Your task to perform on an android device: find snoozed emails in the gmail app Image 0: 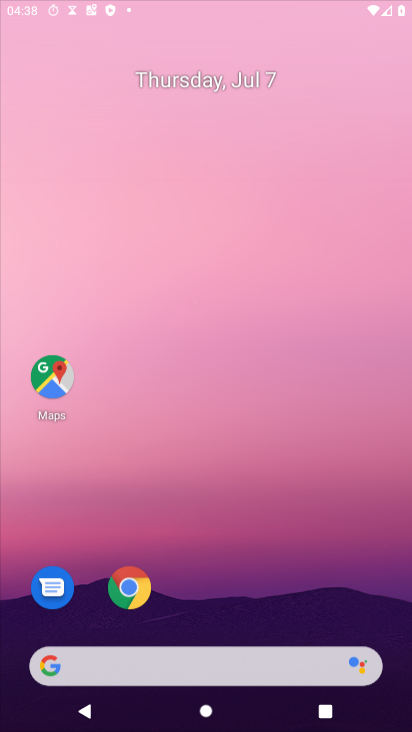
Step 0: press home button
Your task to perform on an android device: find snoozed emails in the gmail app Image 1: 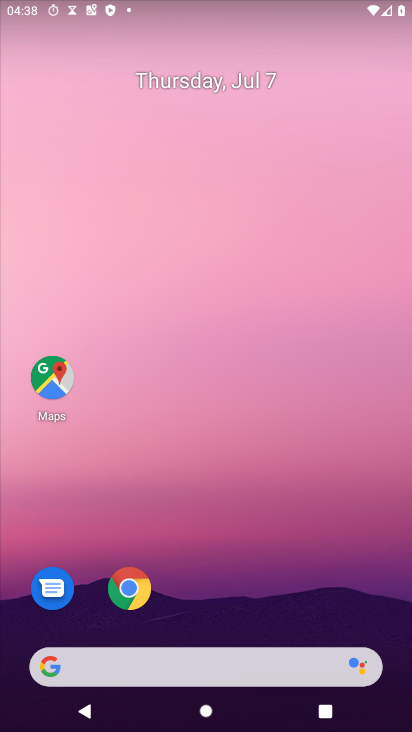
Step 1: drag from (224, 620) to (243, 200)
Your task to perform on an android device: find snoozed emails in the gmail app Image 2: 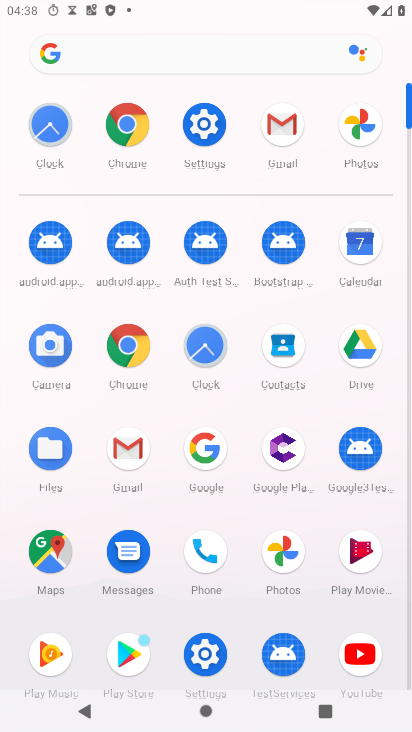
Step 2: click (283, 135)
Your task to perform on an android device: find snoozed emails in the gmail app Image 3: 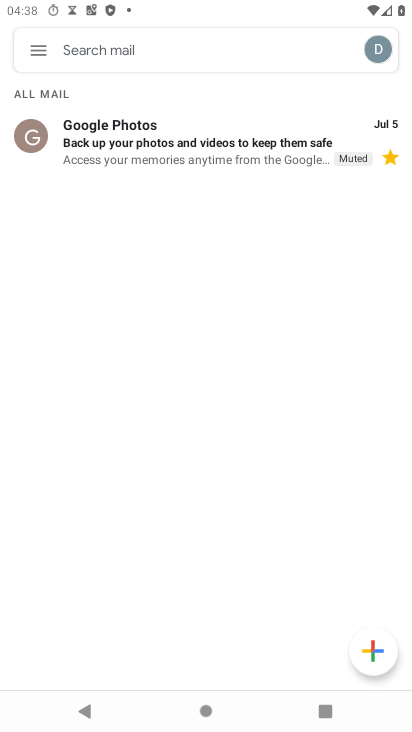
Step 3: click (39, 45)
Your task to perform on an android device: find snoozed emails in the gmail app Image 4: 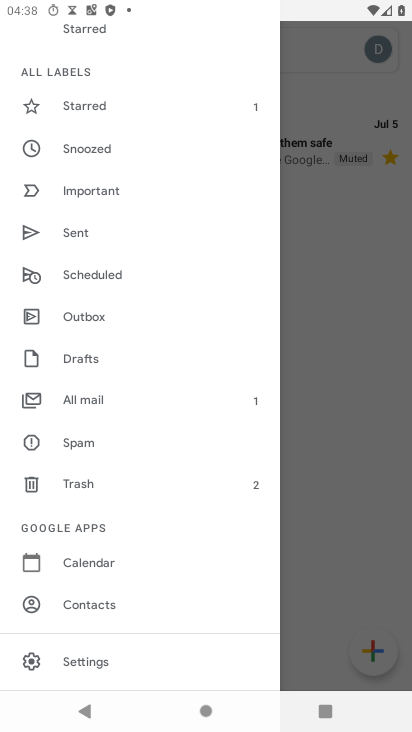
Step 4: click (89, 150)
Your task to perform on an android device: find snoozed emails in the gmail app Image 5: 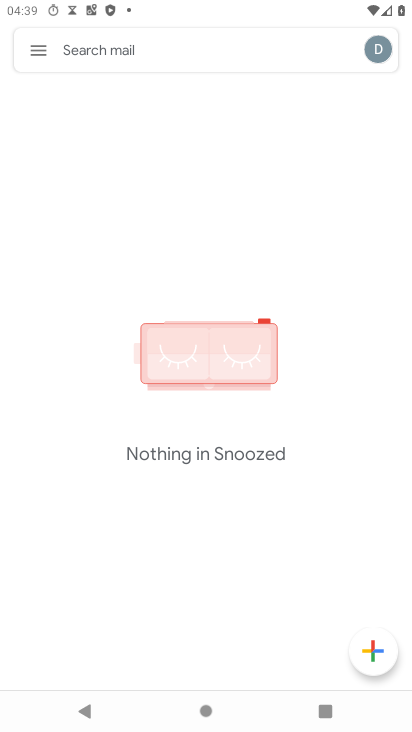
Step 5: task complete